Your task to perform on an android device: all mails in gmail Image 0: 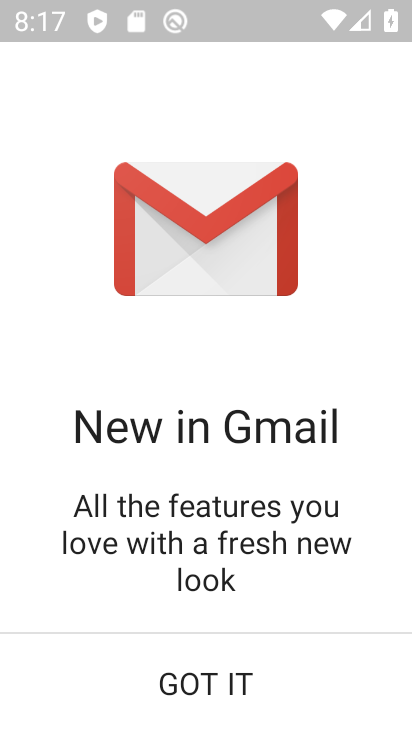
Step 0: click (220, 685)
Your task to perform on an android device: all mails in gmail Image 1: 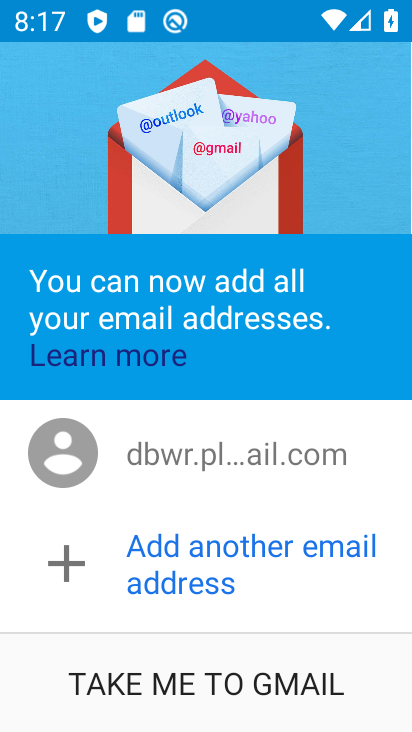
Step 1: click (170, 672)
Your task to perform on an android device: all mails in gmail Image 2: 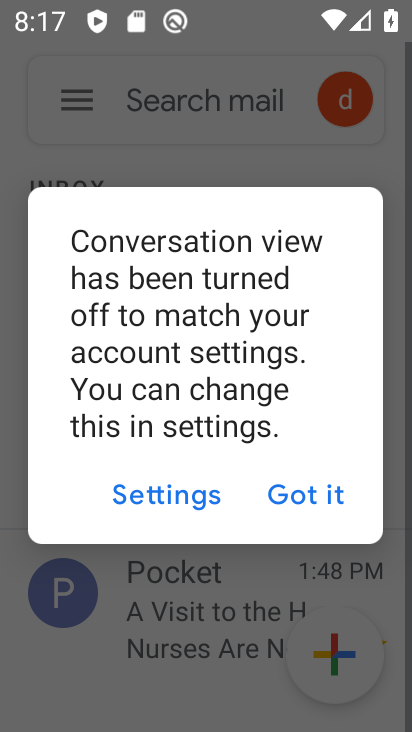
Step 2: click (295, 502)
Your task to perform on an android device: all mails in gmail Image 3: 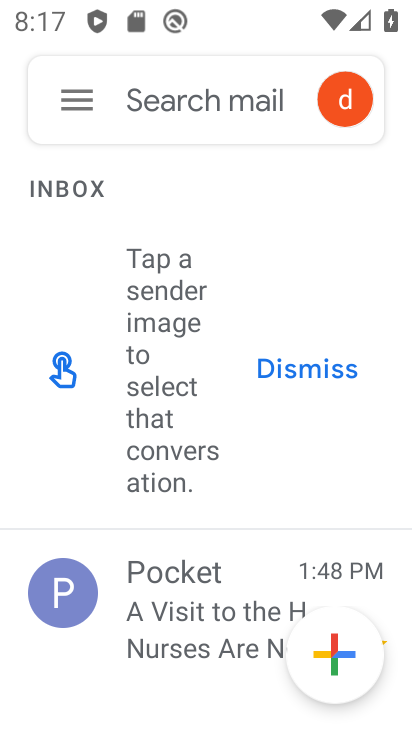
Step 3: task complete